Your task to perform on an android device: Set the phone to "Do not disturb". Image 0: 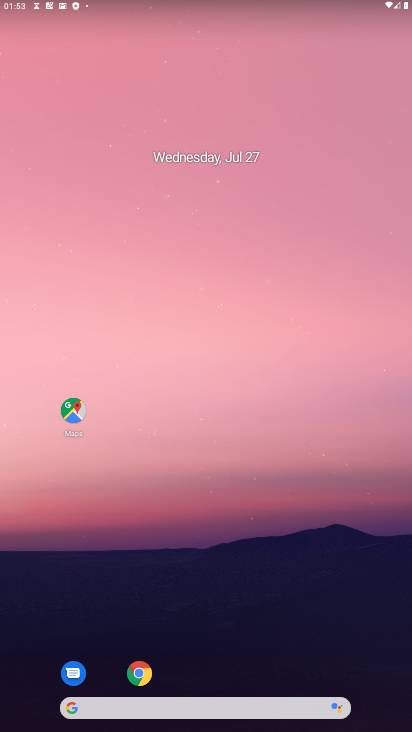
Step 0: click (260, 675)
Your task to perform on an android device: Set the phone to "Do not disturb". Image 1: 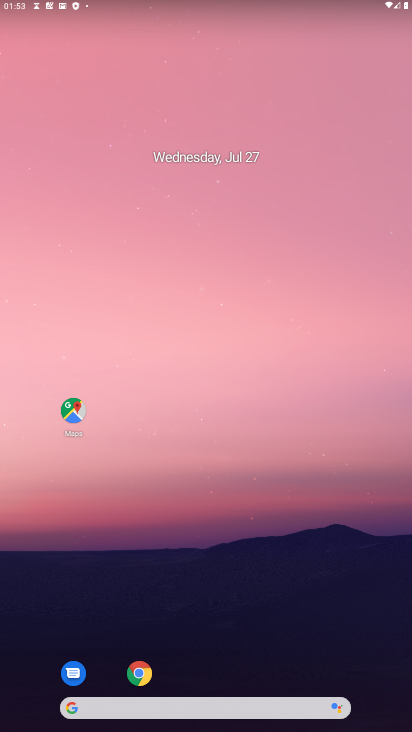
Step 1: drag from (193, 25) to (120, 375)
Your task to perform on an android device: Set the phone to "Do not disturb". Image 2: 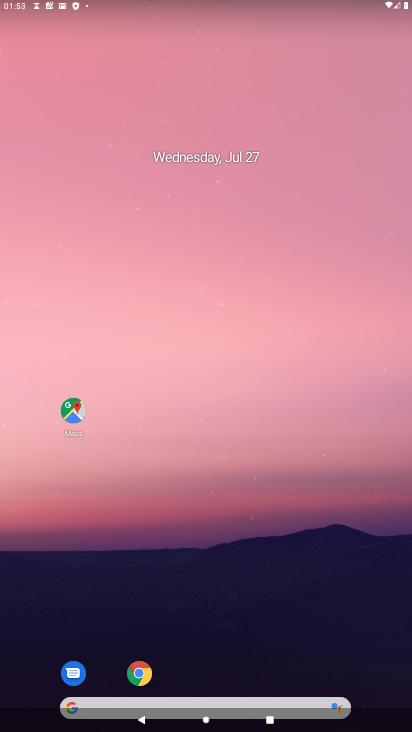
Step 2: drag from (107, 14) to (99, 396)
Your task to perform on an android device: Set the phone to "Do not disturb". Image 3: 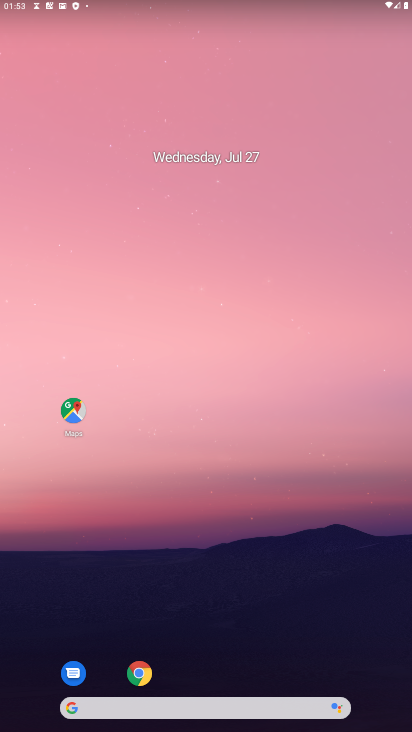
Step 3: drag from (128, 9) to (153, 596)
Your task to perform on an android device: Set the phone to "Do not disturb". Image 4: 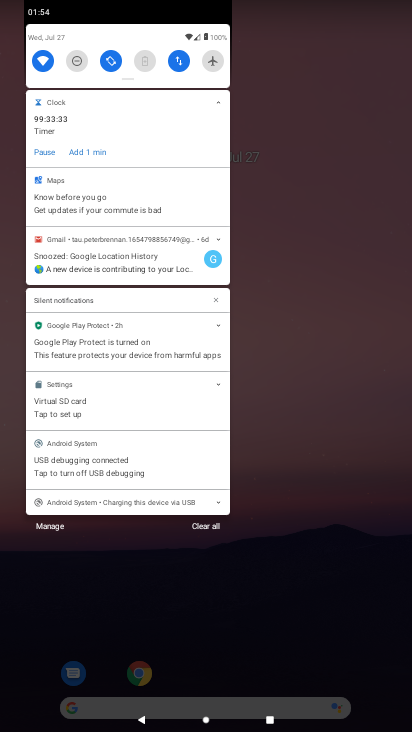
Step 4: click (81, 56)
Your task to perform on an android device: Set the phone to "Do not disturb". Image 5: 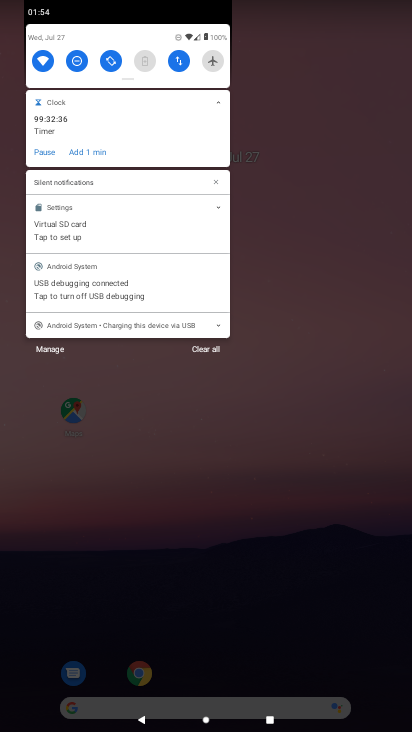
Step 5: task complete